Your task to perform on an android device: snooze an email in the gmail app Image 0: 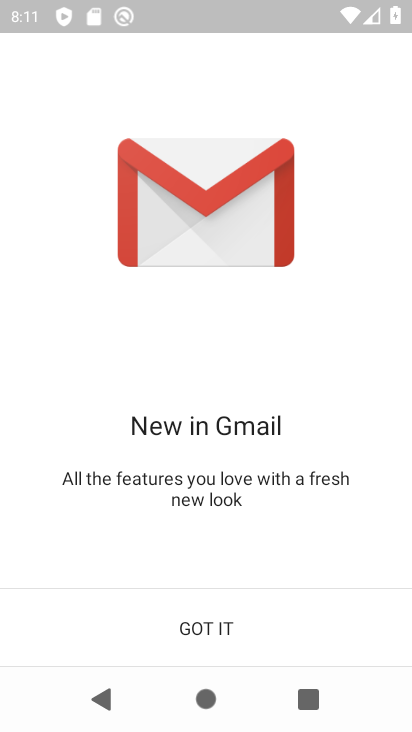
Step 0: click (213, 621)
Your task to perform on an android device: snooze an email in the gmail app Image 1: 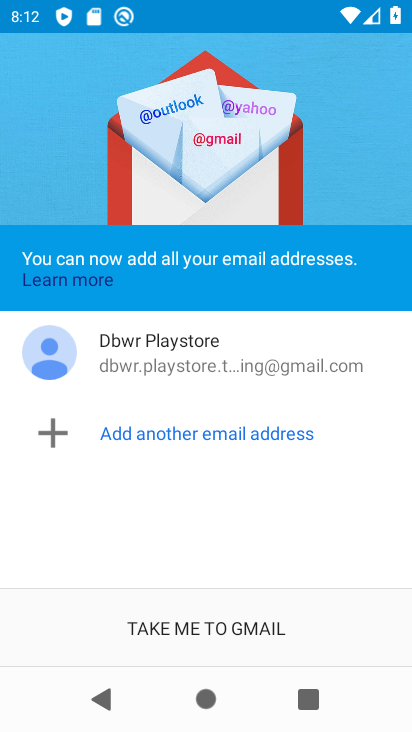
Step 1: press home button
Your task to perform on an android device: snooze an email in the gmail app Image 2: 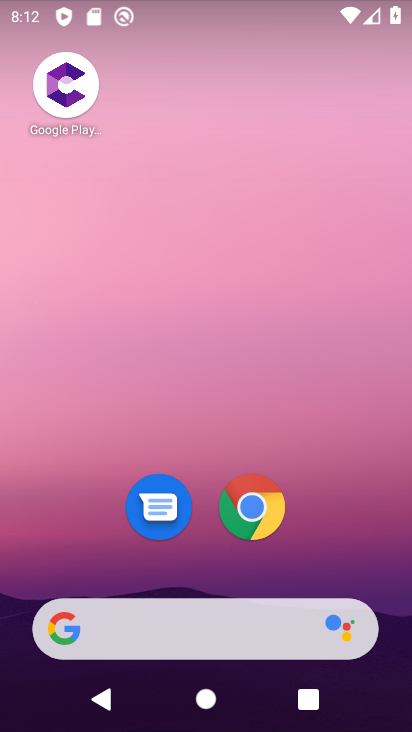
Step 2: drag from (219, 702) to (221, 237)
Your task to perform on an android device: snooze an email in the gmail app Image 3: 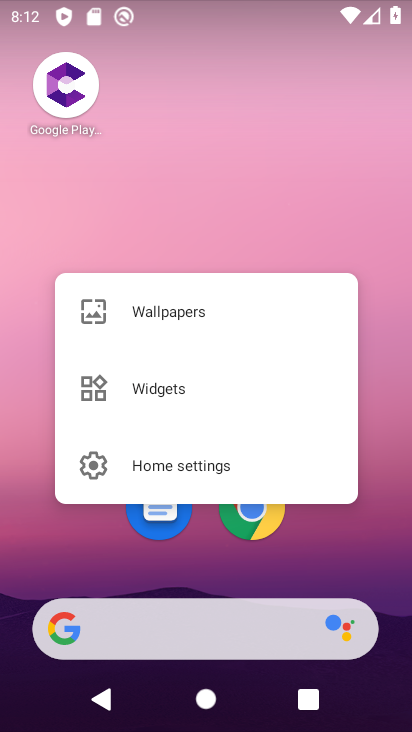
Step 3: click (203, 563)
Your task to perform on an android device: snooze an email in the gmail app Image 4: 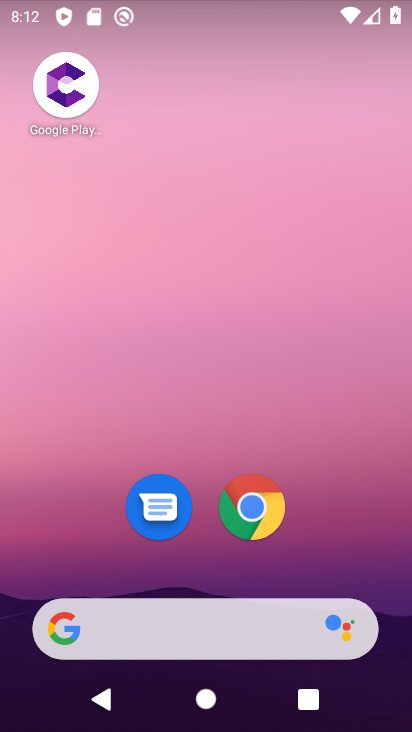
Step 4: drag from (233, 724) to (243, 133)
Your task to perform on an android device: snooze an email in the gmail app Image 5: 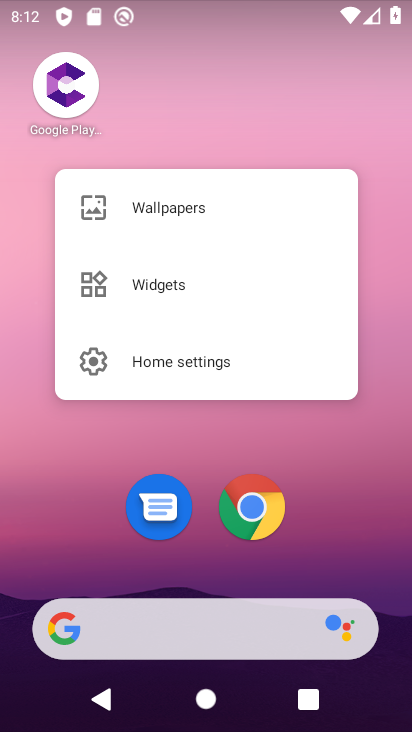
Step 5: click (186, 450)
Your task to perform on an android device: snooze an email in the gmail app Image 6: 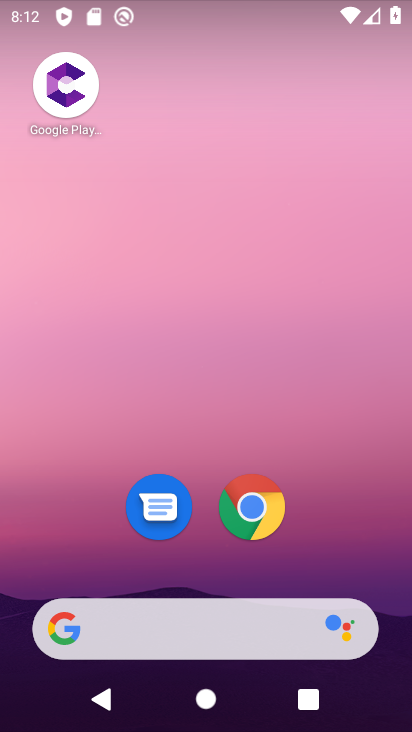
Step 6: drag from (231, 723) to (233, 137)
Your task to perform on an android device: snooze an email in the gmail app Image 7: 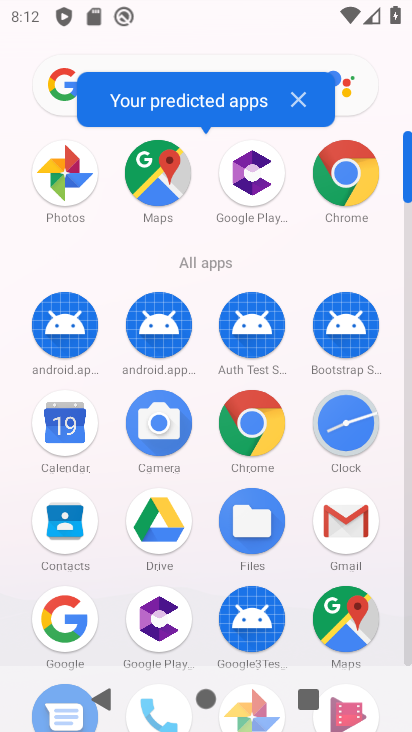
Step 7: click (356, 522)
Your task to perform on an android device: snooze an email in the gmail app Image 8: 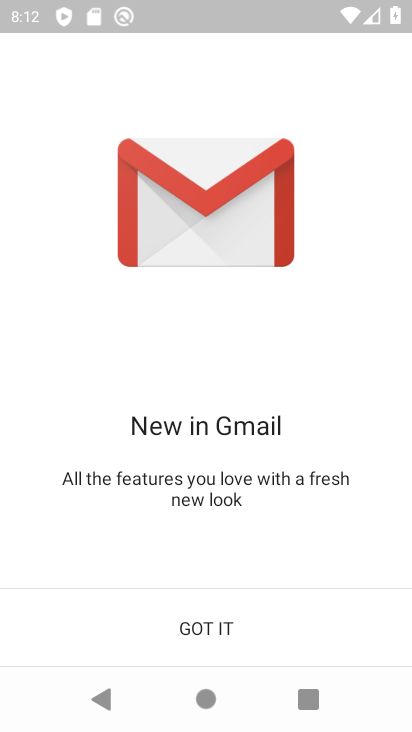
Step 8: click (207, 622)
Your task to perform on an android device: snooze an email in the gmail app Image 9: 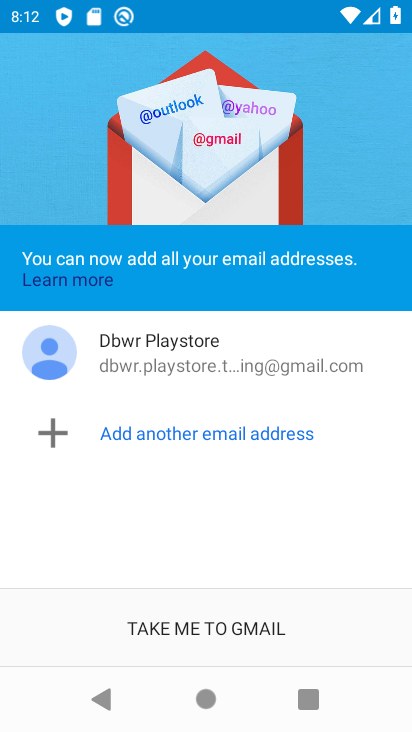
Step 9: click (207, 624)
Your task to perform on an android device: snooze an email in the gmail app Image 10: 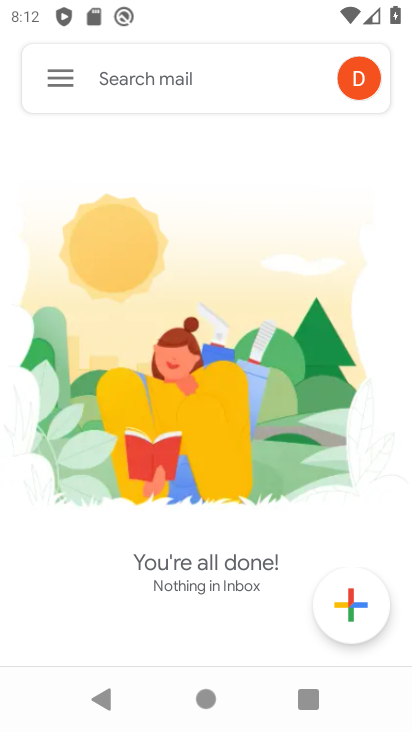
Step 10: task complete